Your task to perform on an android device: empty trash in the gmail app Image 0: 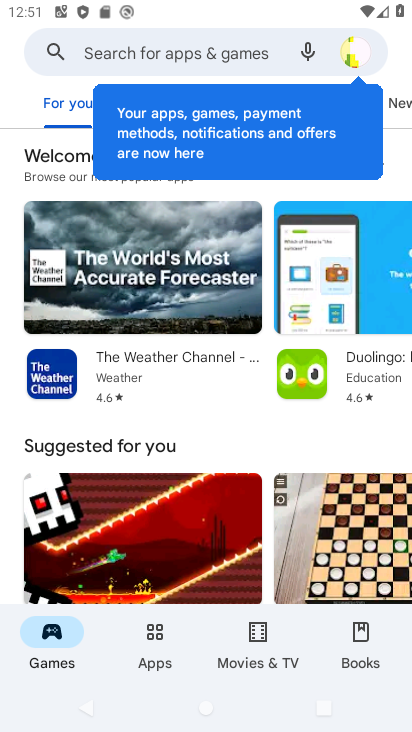
Step 0: press home button
Your task to perform on an android device: empty trash in the gmail app Image 1: 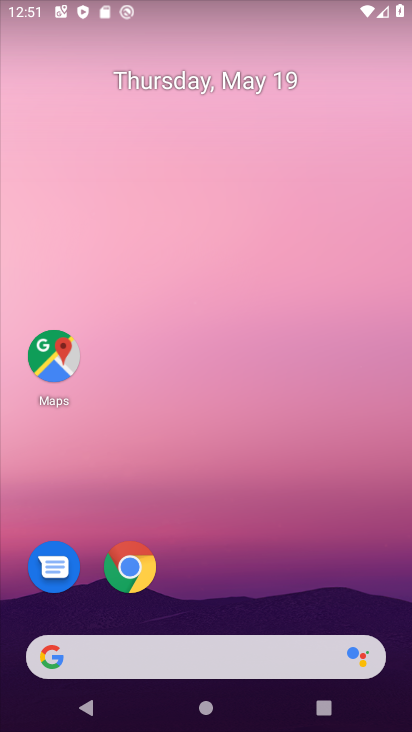
Step 1: drag from (95, 516) to (277, 138)
Your task to perform on an android device: empty trash in the gmail app Image 2: 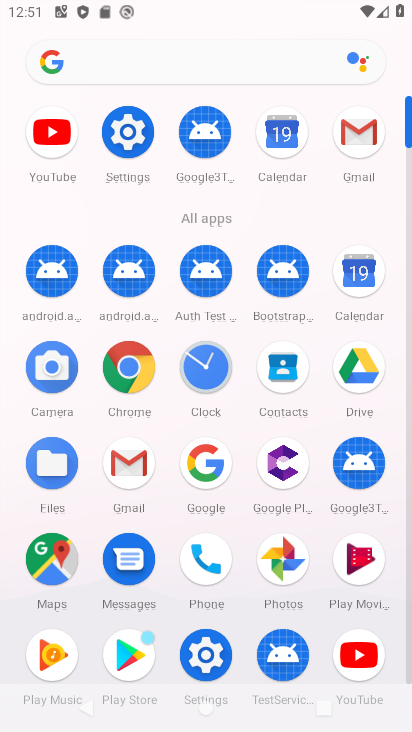
Step 2: click (125, 125)
Your task to perform on an android device: empty trash in the gmail app Image 3: 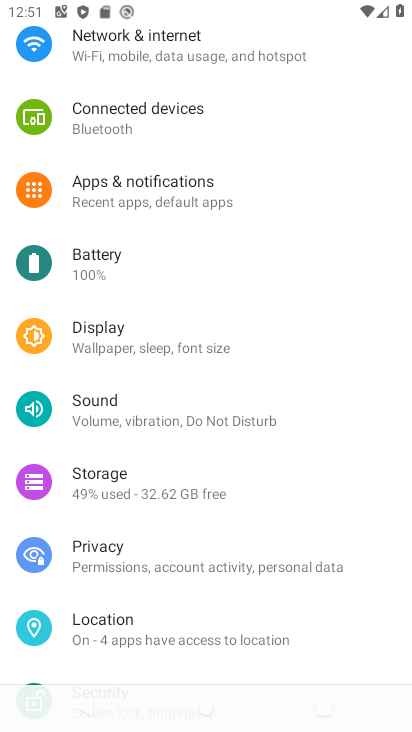
Step 3: press home button
Your task to perform on an android device: empty trash in the gmail app Image 4: 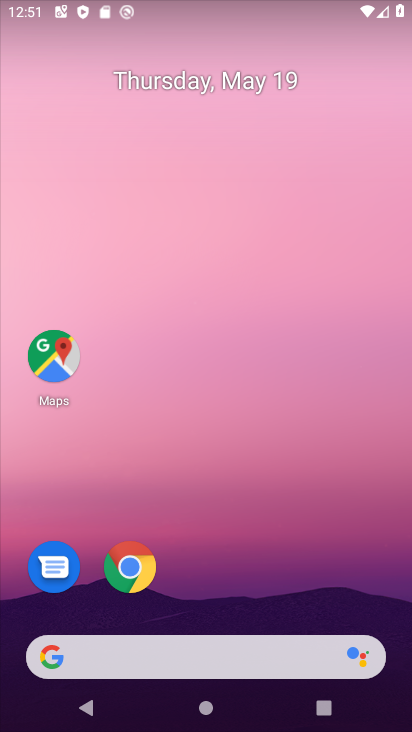
Step 4: drag from (37, 643) to (359, 117)
Your task to perform on an android device: empty trash in the gmail app Image 5: 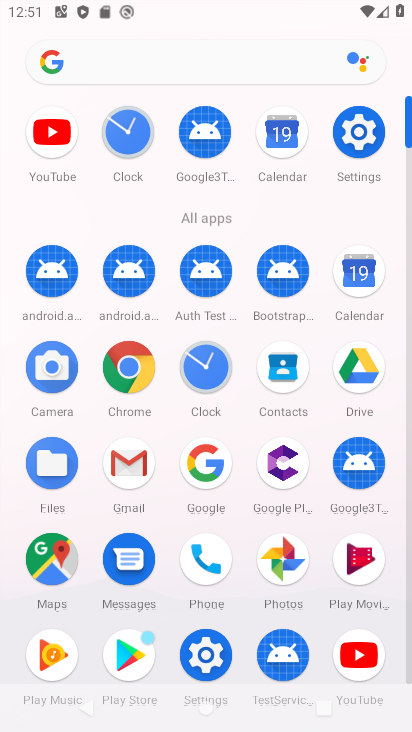
Step 5: click (135, 458)
Your task to perform on an android device: empty trash in the gmail app Image 6: 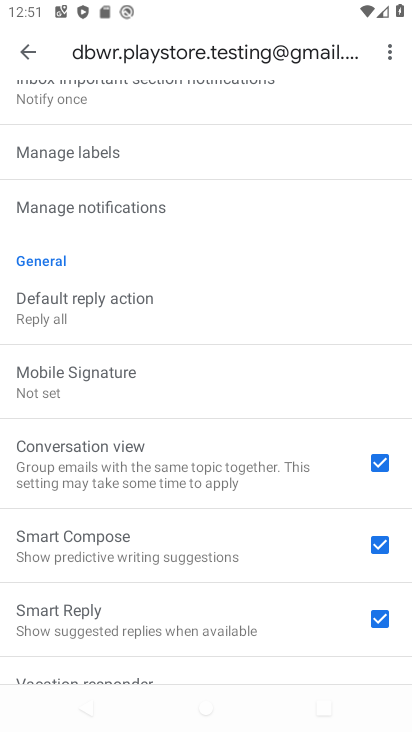
Step 6: drag from (192, 645) to (303, 203)
Your task to perform on an android device: empty trash in the gmail app Image 7: 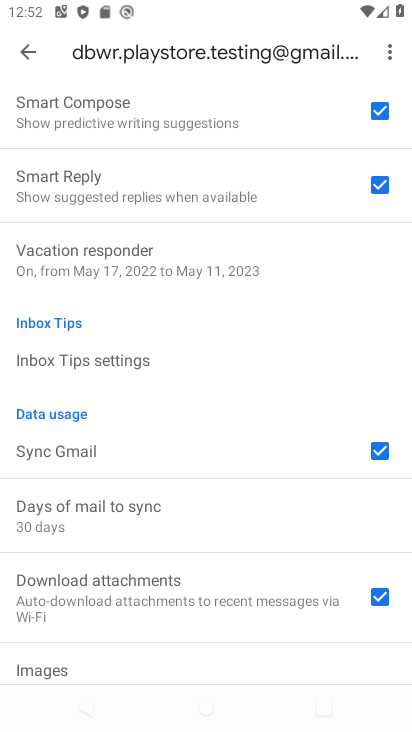
Step 7: press back button
Your task to perform on an android device: empty trash in the gmail app Image 8: 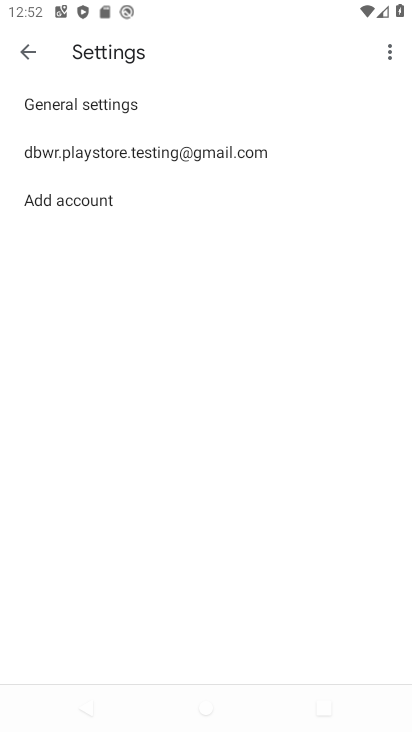
Step 8: press back button
Your task to perform on an android device: empty trash in the gmail app Image 9: 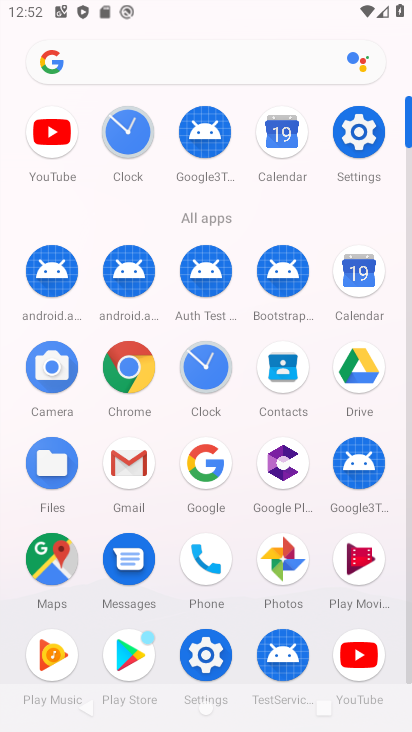
Step 9: click (134, 475)
Your task to perform on an android device: empty trash in the gmail app Image 10: 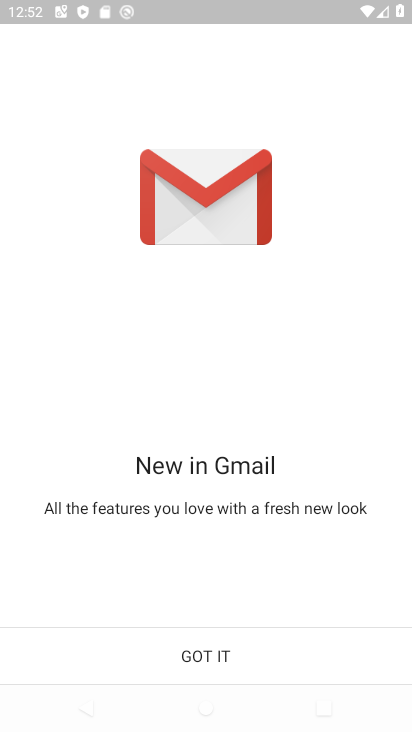
Step 10: click (179, 653)
Your task to perform on an android device: empty trash in the gmail app Image 11: 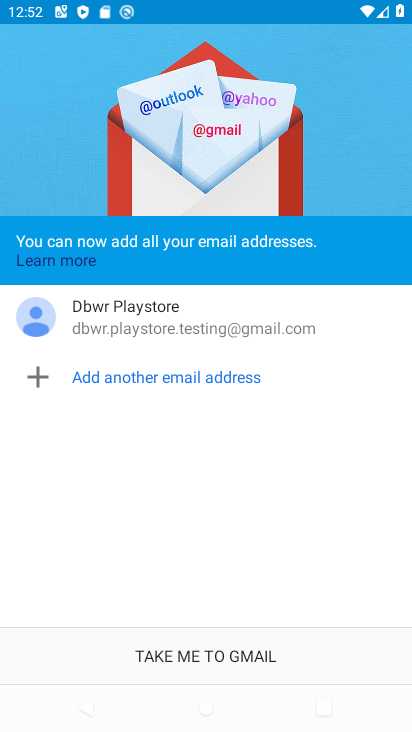
Step 11: click (218, 653)
Your task to perform on an android device: empty trash in the gmail app Image 12: 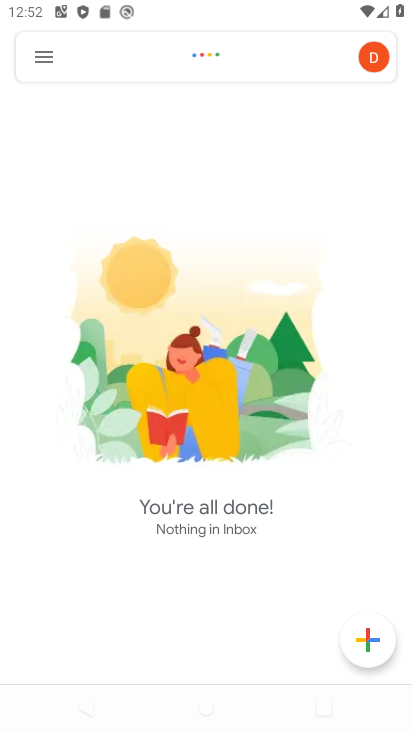
Step 12: click (38, 53)
Your task to perform on an android device: empty trash in the gmail app Image 13: 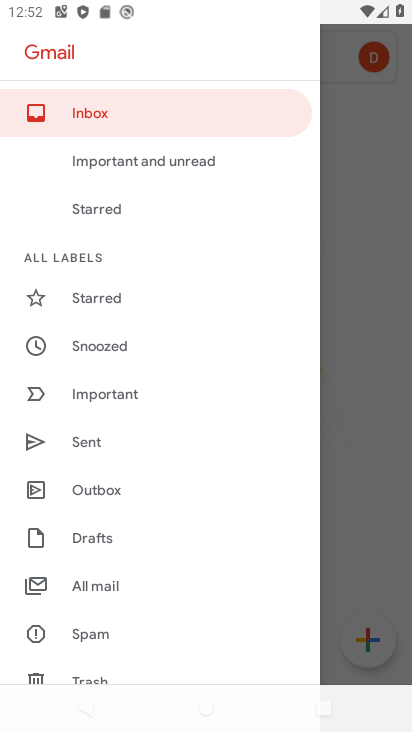
Step 13: drag from (12, 618) to (137, 305)
Your task to perform on an android device: empty trash in the gmail app Image 14: 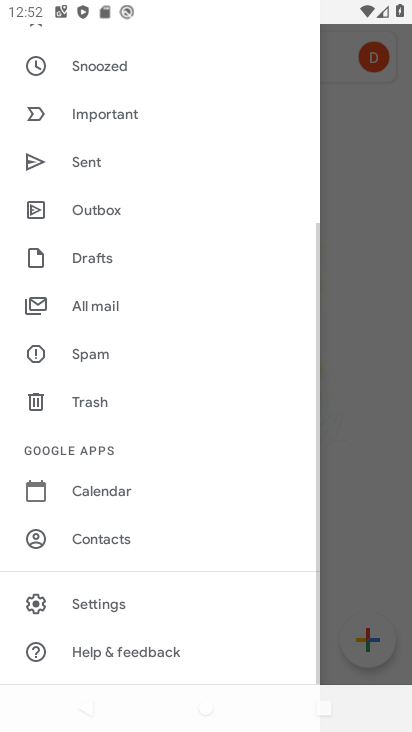
Step 14: click (109, 395)
Your task to perform on an android device: empty trash in the gmail app Image 15: 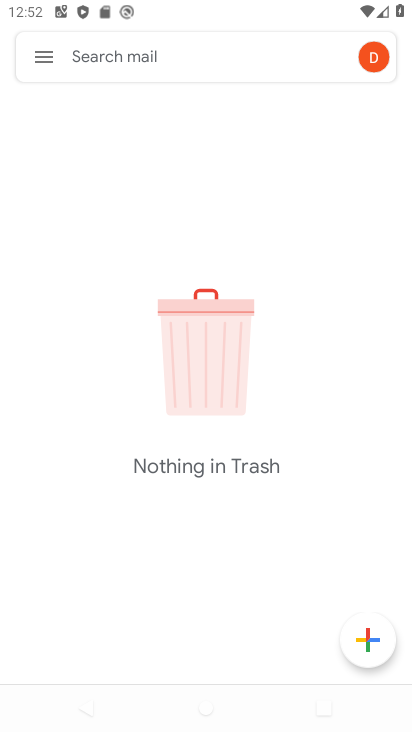
Step 15: task complete